Your task to perform on an android device: Open Yahoo.com Image 0: 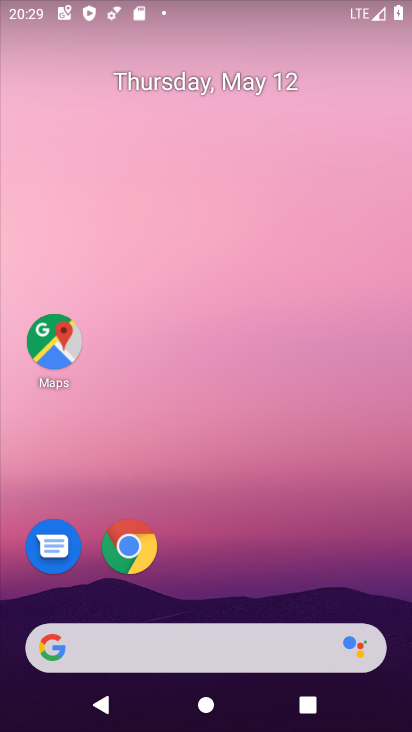
Step 0: click (134, 544)
Your task to perform on an android device: Open Yahoo.com Image 1: 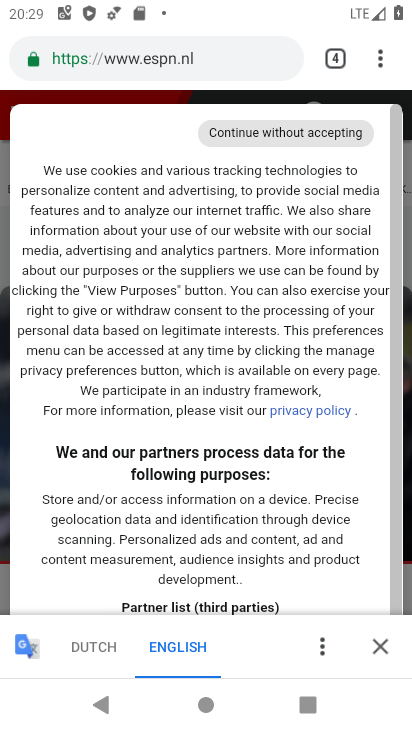
Step 1: click (331, 55)
Your task to perform on an android device: Open Yahoo.com Image 2: 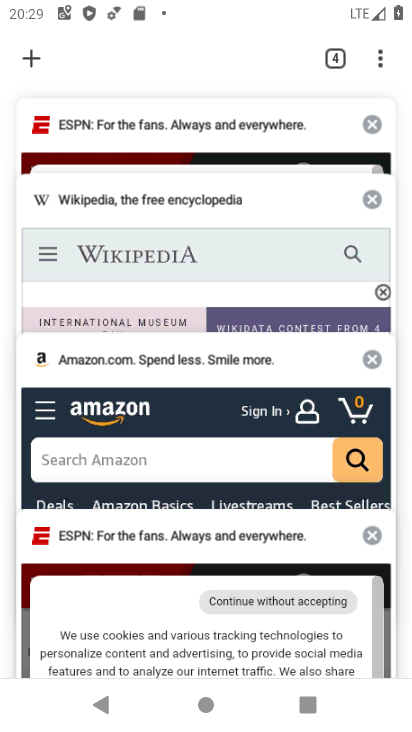
Step 2: click (33, 59)
Your task to perform on an android device: Open Yahoo.com Image 3: 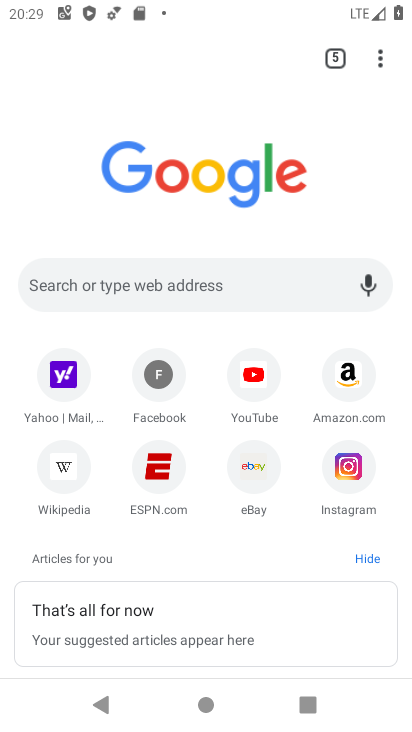
Step 3: click (45, 365)
Your task to perform on an android device: Open Yahoo.com Image 4: 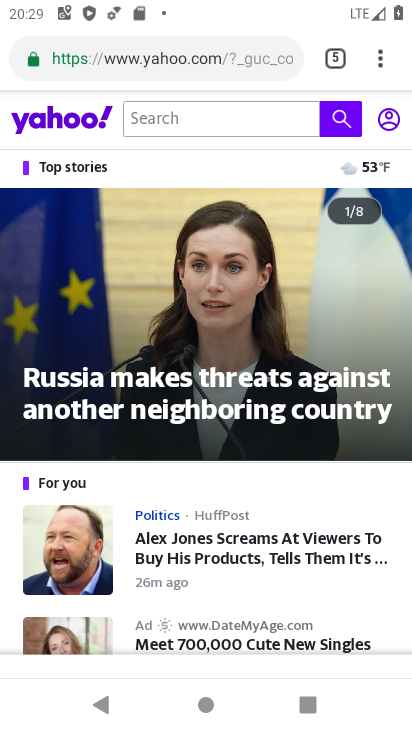
Step 4: task complete